Your task to perform on an android device: read, delete, or share a saved page in the chrome app Image 0: 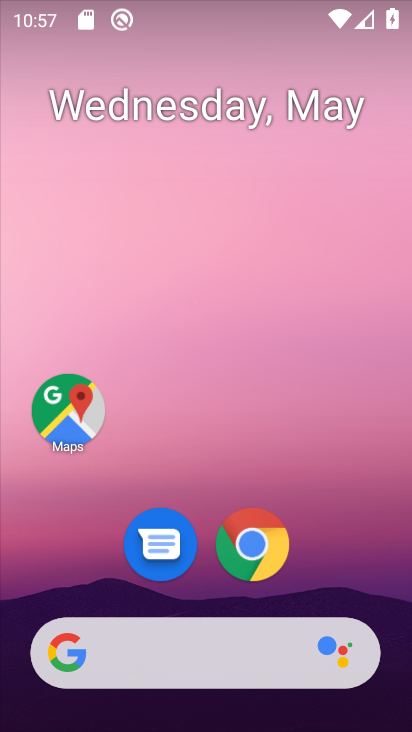
Step 0: drag from (323, 588) to (79, 188)
Your task to perform on an android device: read, delete, or share a saved page in the chrome app Image 1: 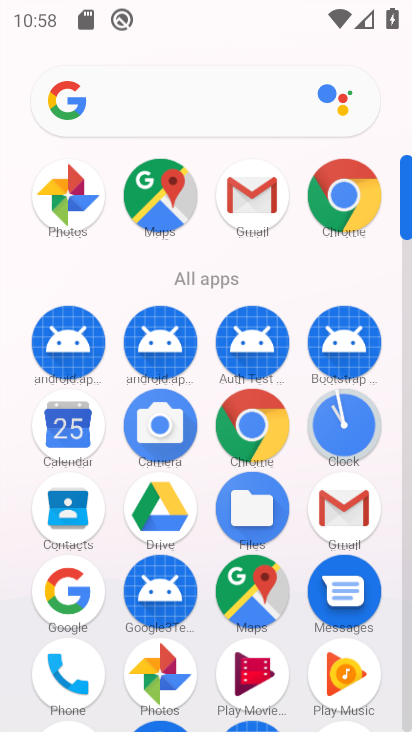
Step 1: click (357, 218)
Your task to perform on an android device: read, delete, or share a saved page in the chrome app Image 2: 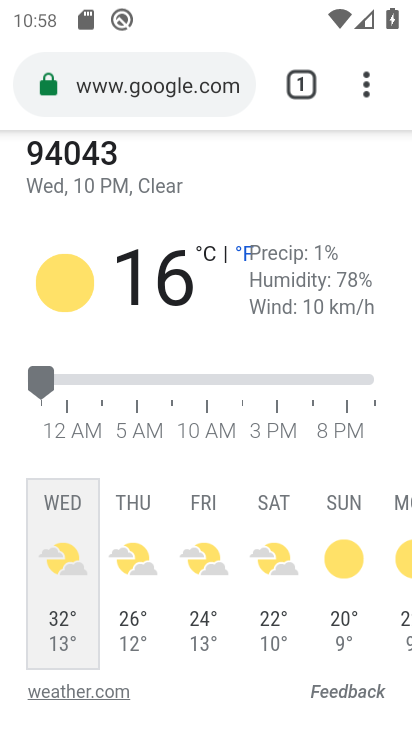
Step 2: click (368, 86)
Your task to perform on an android device: read, delete, or share a saved page in the chrome app Image 3: 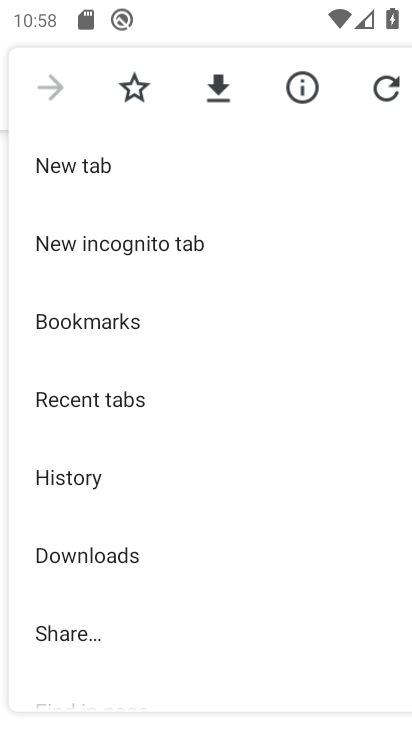
Step 3: drag from (191, 644) to (178, 186)
Your task to perform on an android device: read, delete, or share a saved page in the chrome app Image 4: 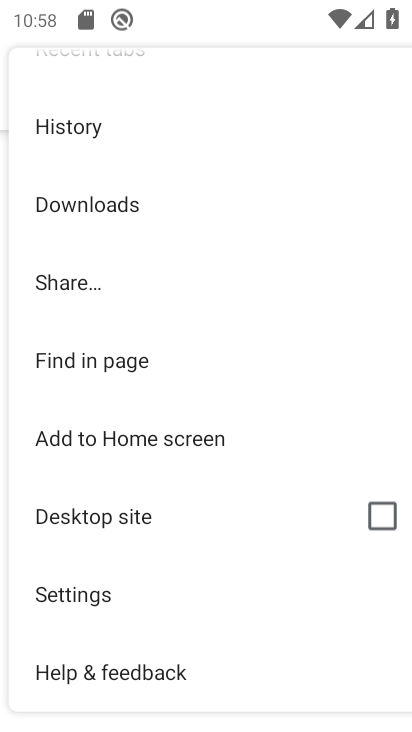
Step 4: drag from (147, 97) to (133, 420)
Your task to perform on an android device: read, delete, or share a saved page in the chrome app Image 5: 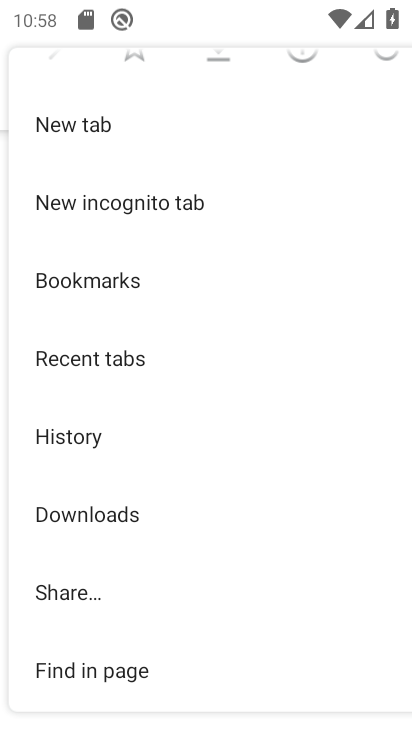
Step 5: click (94, 288)
Your task to perform on an android device: read, delete, or share a saved page in the chrome app Image 6: 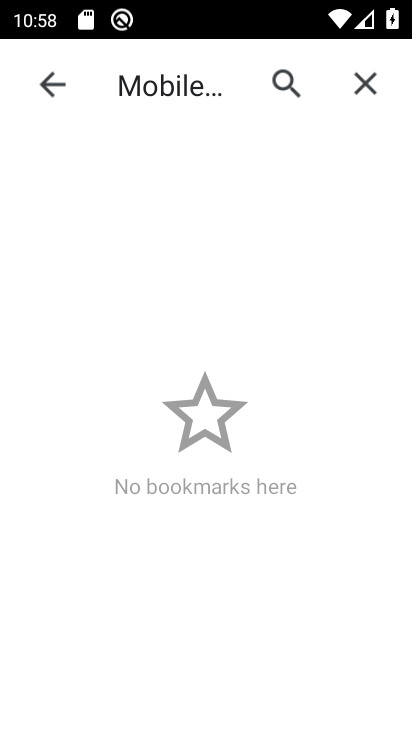
Step 6: click (239, 494)
Your task to perform on an android device: read, delete, or share a saved page in the chrome app Image 7: 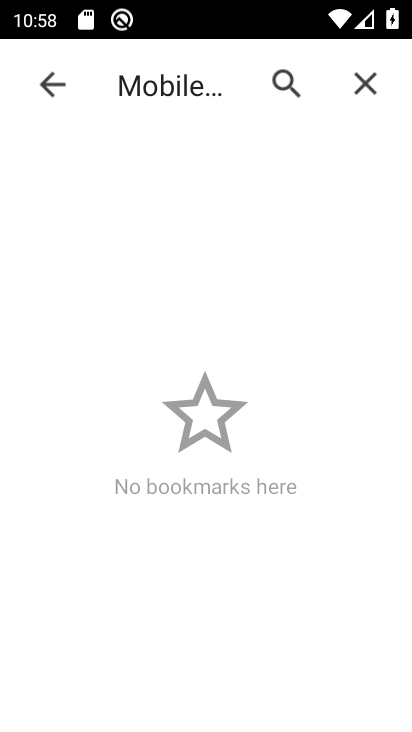
Step 7: task complete